Your task to perform on an android device: turn on data saver in the chrome app Image 0: 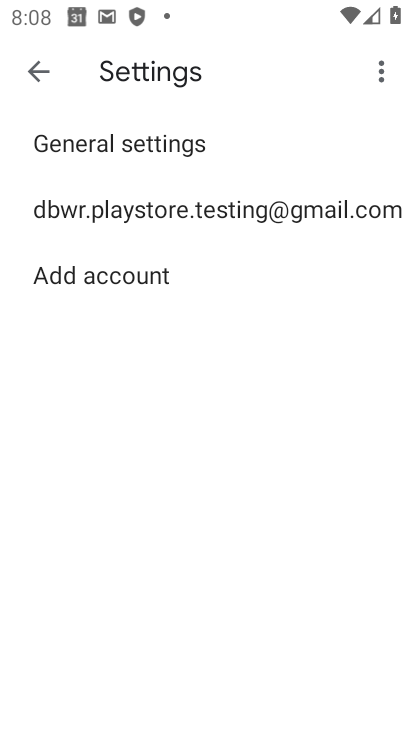
Step 0: press home button
Your task to perform on an android device: turn on data saver in the chrome app Image 1: 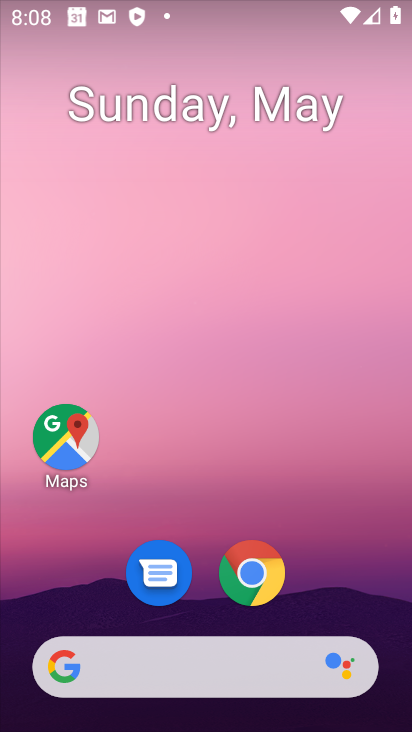
Step 1: click (262, 573)
Your task to perform on an android device: turn on data saver in the chrome app Image 2: 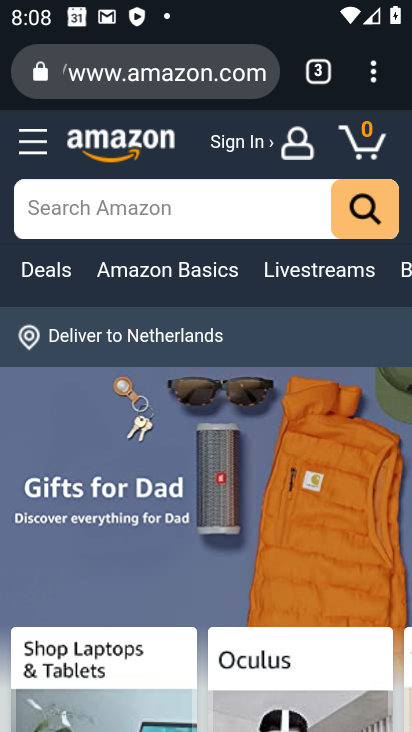
Step 2: click (373, 74)
Your task to perform on an android device: turn on data saver in the chrome app Image 3: 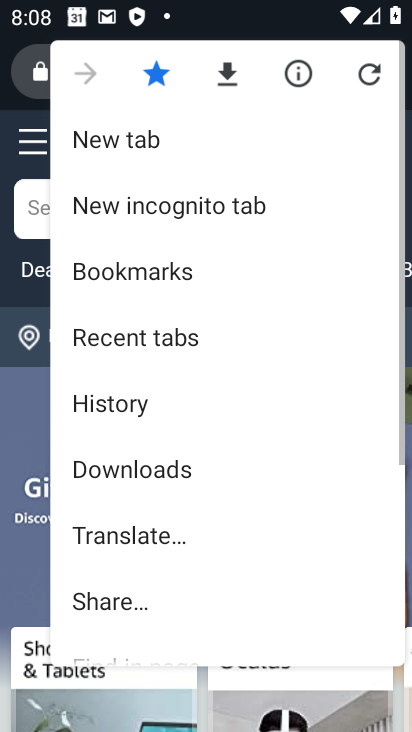
Step 3: drag from (283, 580) to (232, 65)
Your task to perform on an android device: turn on data saver in the chrome app Image 4: 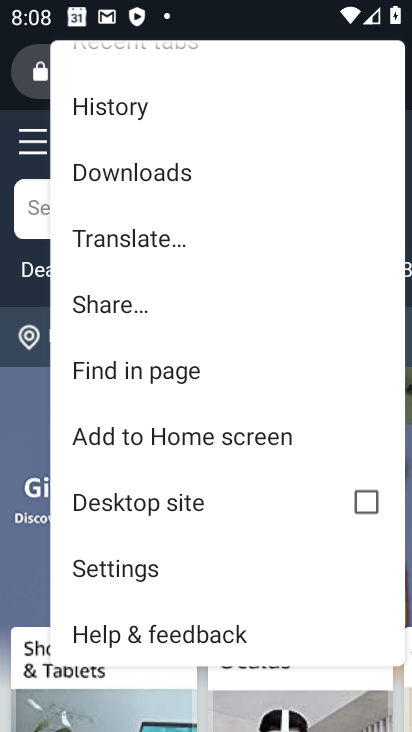
Step 4: click (186, 568)
Your task to perform on an android device: turn on data saver in the chrome app Image 5: 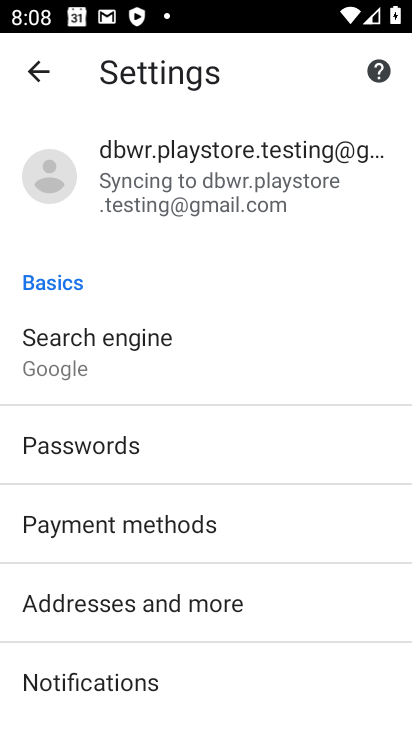
Step 5: drag from (213, 565) to (218, 128)
Your task to perform on an android device: turn on data saver in the chrome app Image 6: 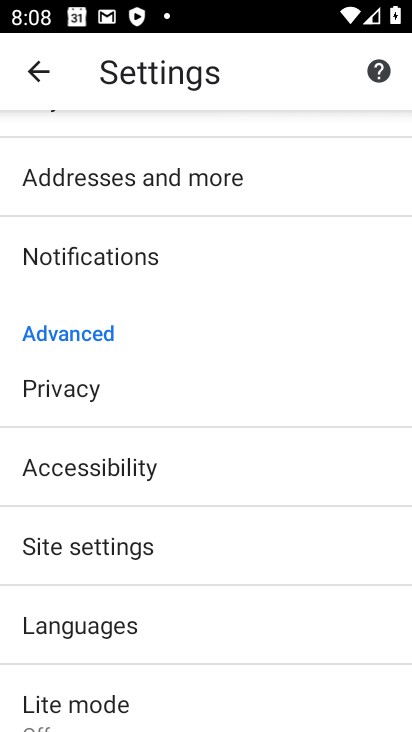
Step 6: drag from (270, 608) to (273, 299)
Your task to perform on an android device: turn on data saver in the chrome app Image 7: 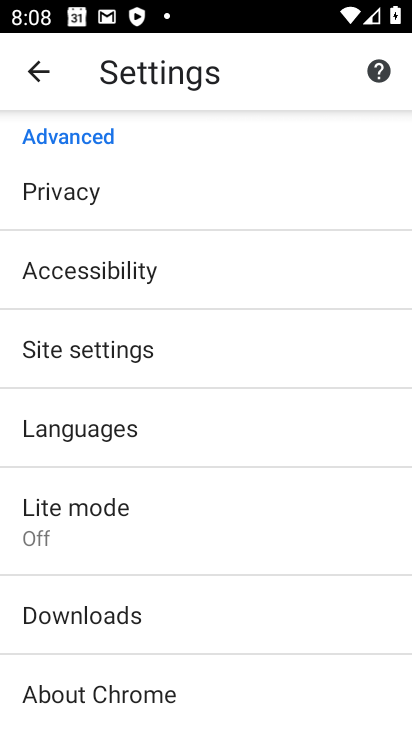
Step 7: click (216, 522)
Your task to perform on an android device: turn on data saver in the chrome app Image 8: 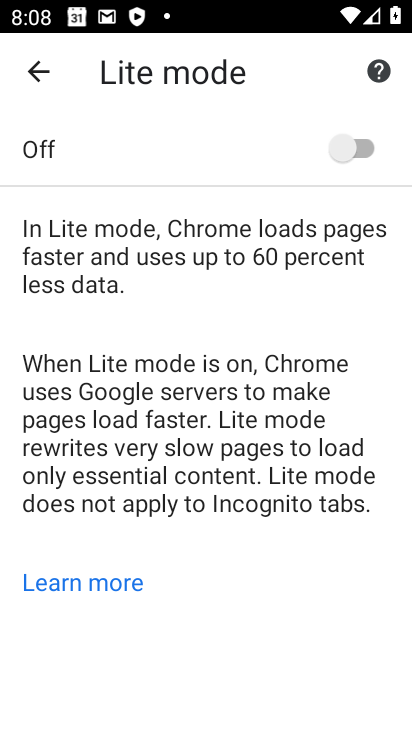
Step 8: click (348, 123)
Your task to perform on an android device: turn on data saver in the chrome app Image 9: 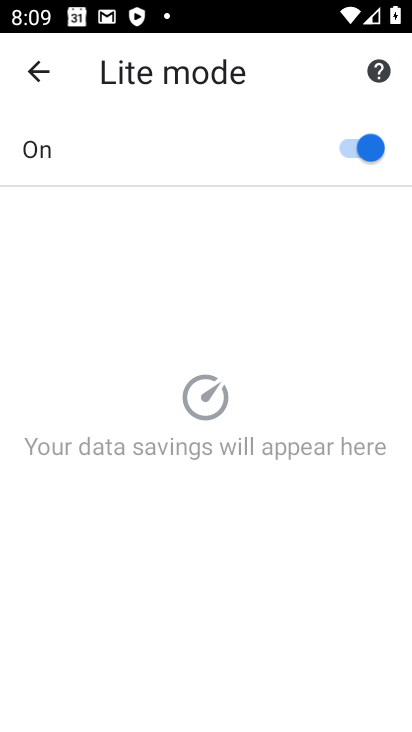
Step 9: task complete